Your task to perform on an android device: turn off sleep mode Image 0: 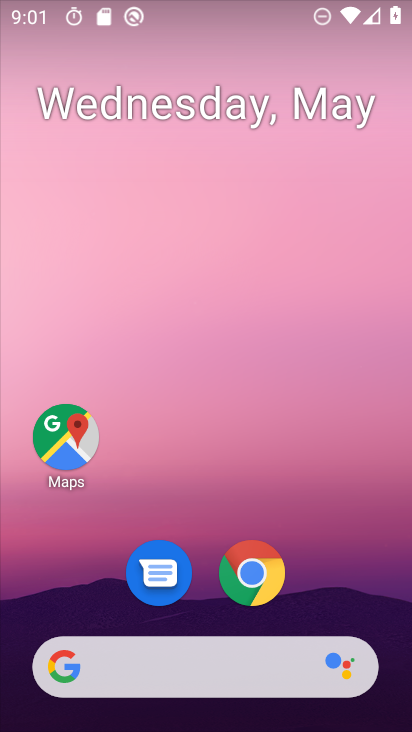
Step 0: drag from (395, 704) to (396, 281)
Your task to perform on an android device: turn off sleep mode Image 1: 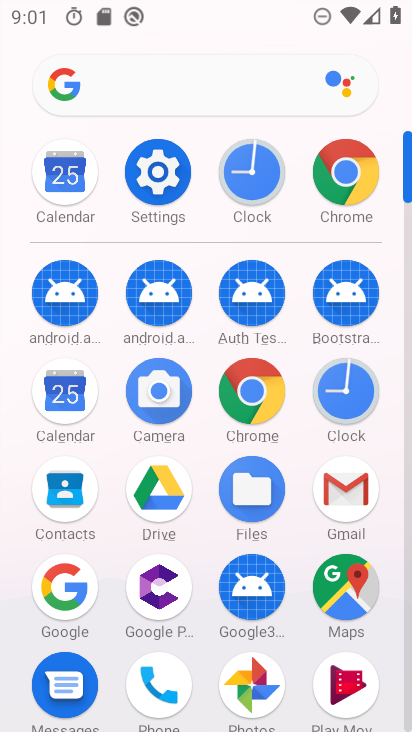
Step 1: click (176, 178)
Your task to perform on an android device: turn off sleep mode Image 2: 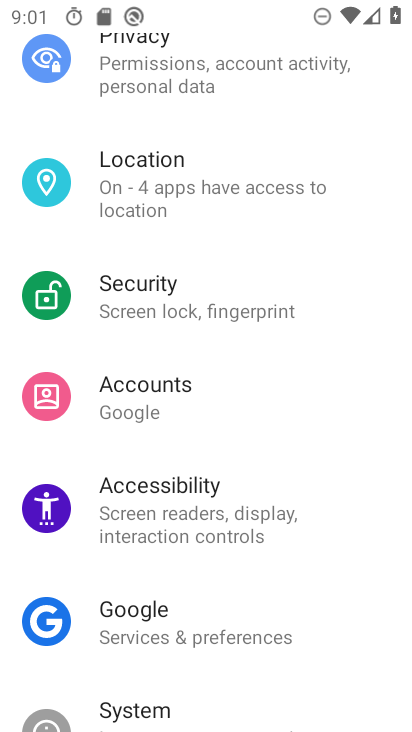
Step 2: drag from (310, 130) to (288, 538)
Your task to perform on an android device: turn off sleep mode Image 3: 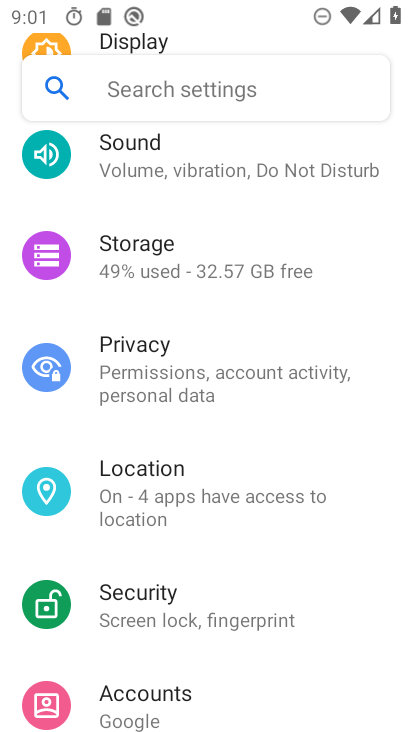
Step 3: drag from (315, 148) to (293, 574)
Your task to perform on an android device: turn off sleep mode Image 4: 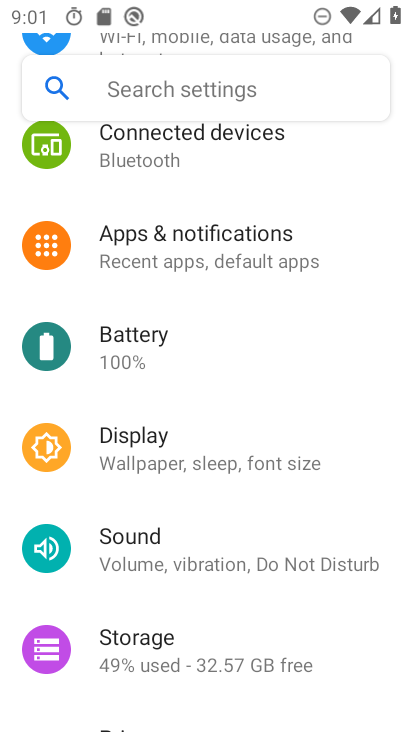
Step 4: click (118, 455)
Your task to perform on an android device: turn off sleep mode Image 5: 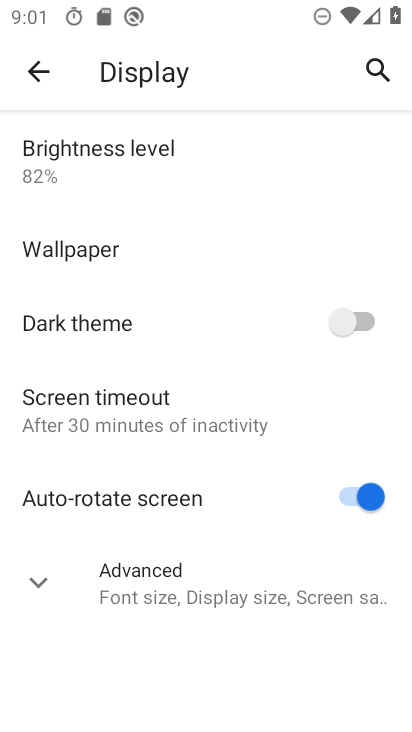
Step 5: click (81, 409)
Your task to perform on an android device: turn off sleep mode Image 6: 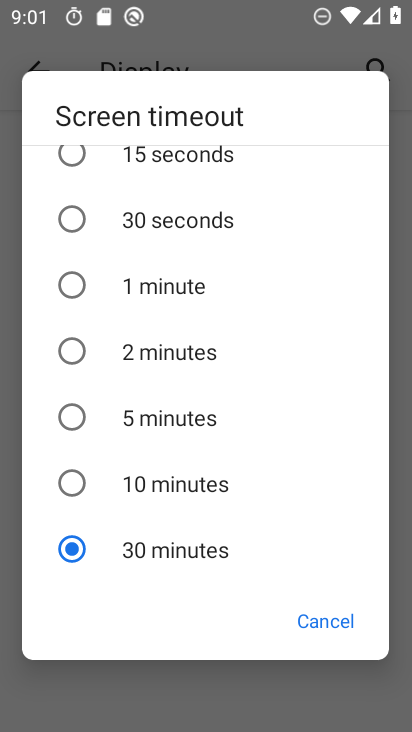
Step 6: task complete